Your task to perform on an android device: change notifications settings Image 0: 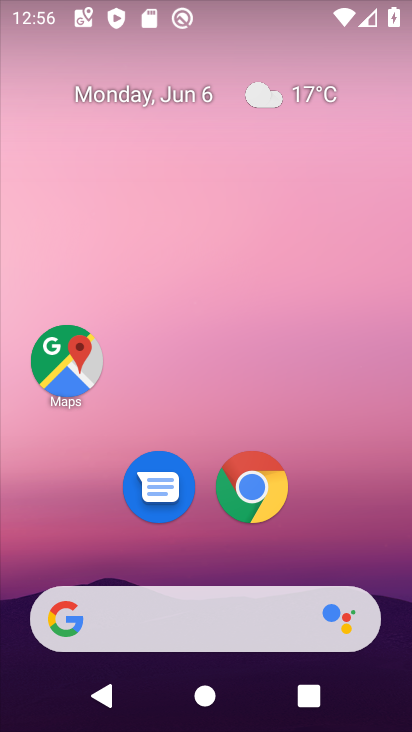
Step 0: drag from (80, 561) to (216, 135)
Your task to perform on an android device: change notifications settings Image 1: 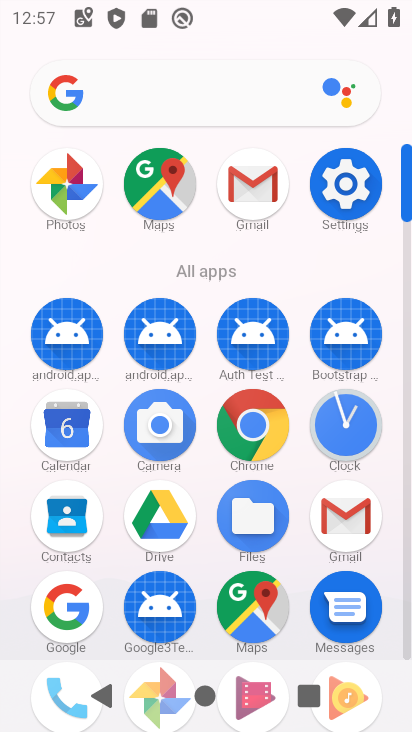
Step 1: drag from (205, 675) to (312, 276)
Your task to perform on an android device: change notifications settings Image 2: 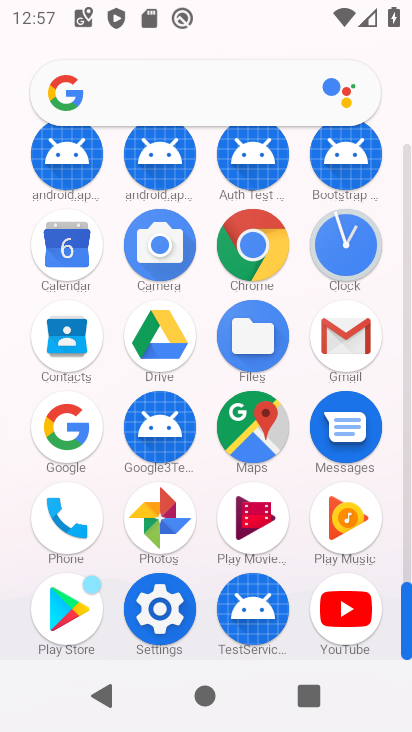
Step 2: click (161, 631)
Your task to perform on an android device: change notifications settings Image 3: 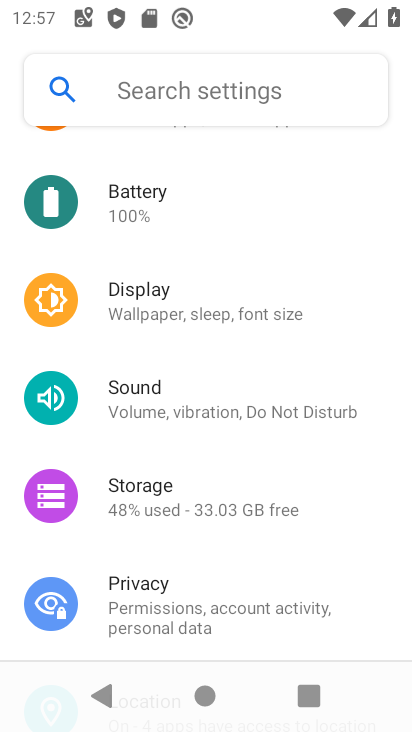
Step 3: drag from (213, 578) to (363, 238)
Your task to perform on an android device: change notifications settings Image 4: 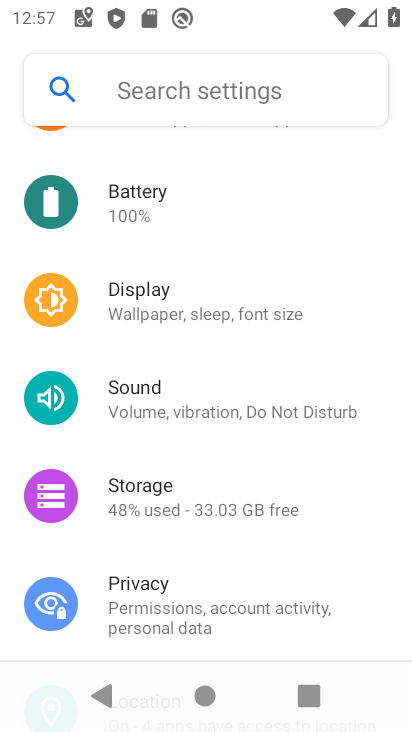
Step 4: drag from (326, 209) to (307, 596)
Your task to perform on an android device: change notifications settings Image 5: 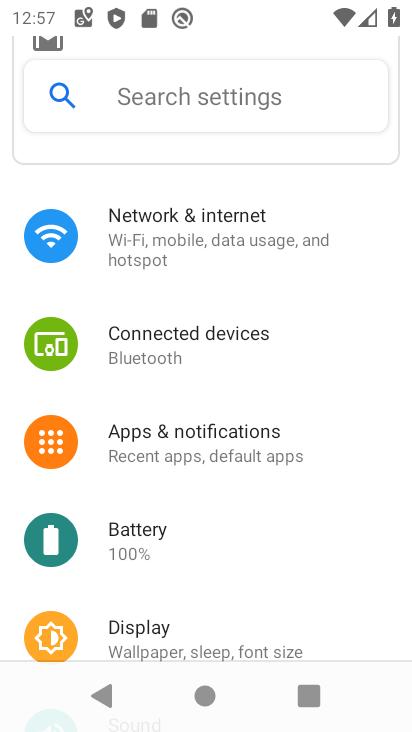
Step 5: click (265, 434)
Your task to perform on an android device: change notifications settings Image 6: 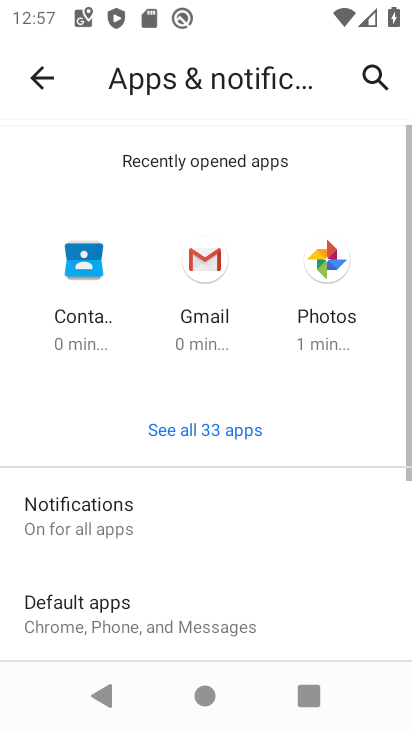
Step 6: drag from (232, 595) to (359, 206)
Your task to perform on an android device: change notifications settings Image 7: 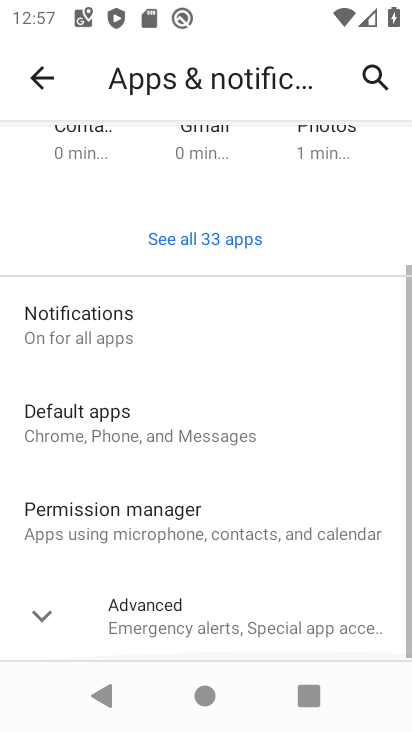
Step 7: click (159, 346)
Your task to perform on an android device: change notifications settings Image 8: 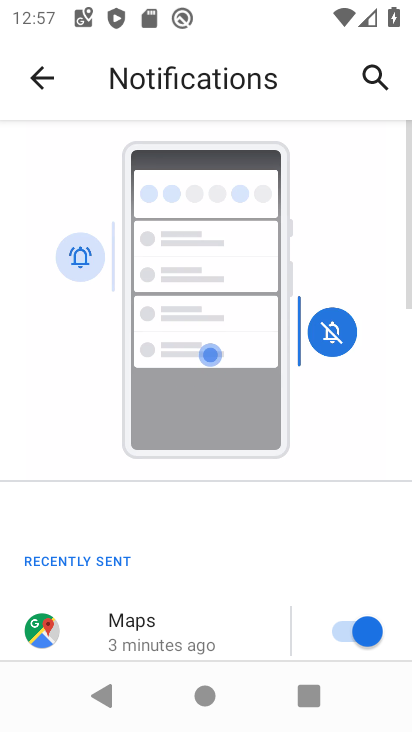
Step 8: drag from (167, 617) to (336, 132)
Your task to perform on an android device: change notifications settings Image 9: 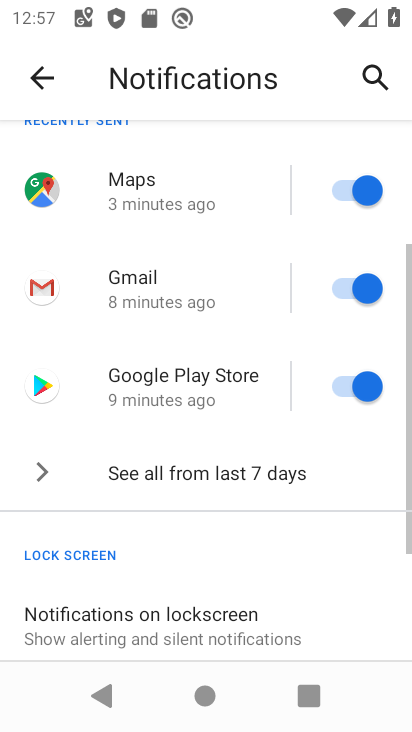
Step 9: drag from (219, 505) to (299, 190)
Your task to perform on an android device: change notifications settings Image 10: 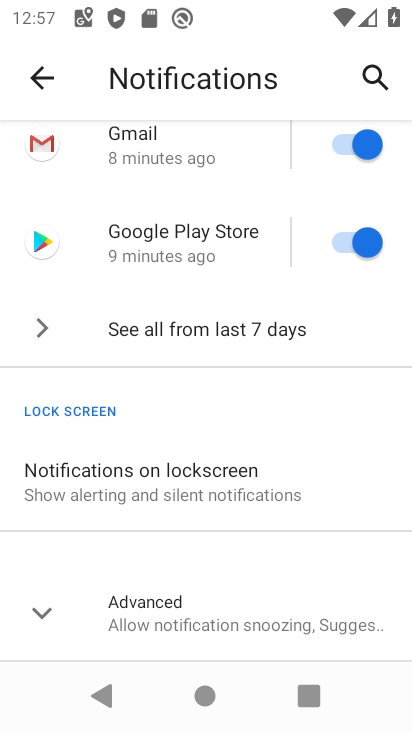
Step 10: click (235, 606)
Your task to perform on an android device: change notifications settings Image 11: 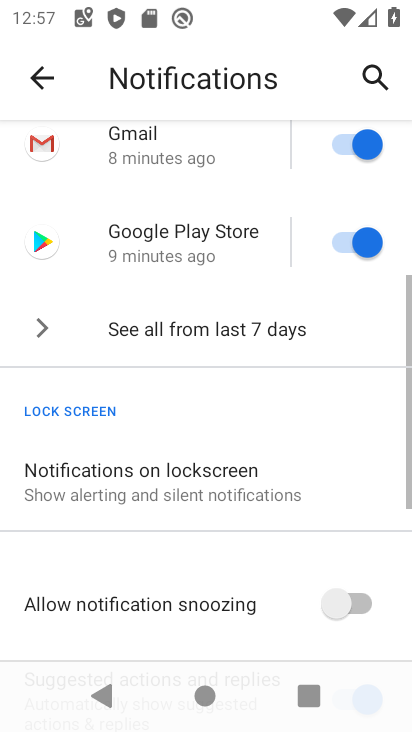
Step 11: drag from (241, 573) to (321, 323)
Your task to perform on an android device: change notifications settings Image 12: 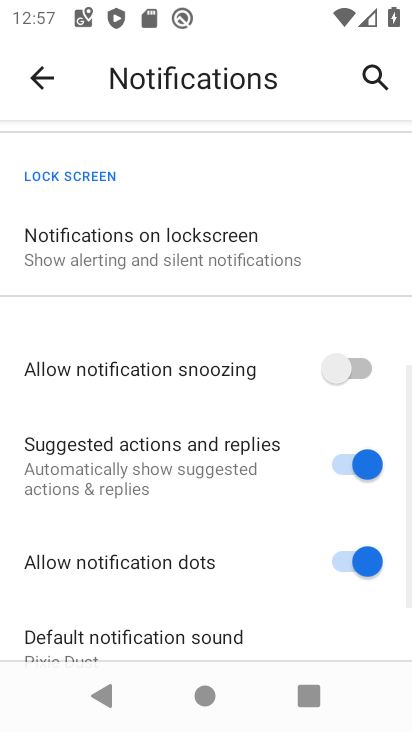
Step 12: click (369, 366)
Your task to perform on an android device: change notifications settings Image 13: 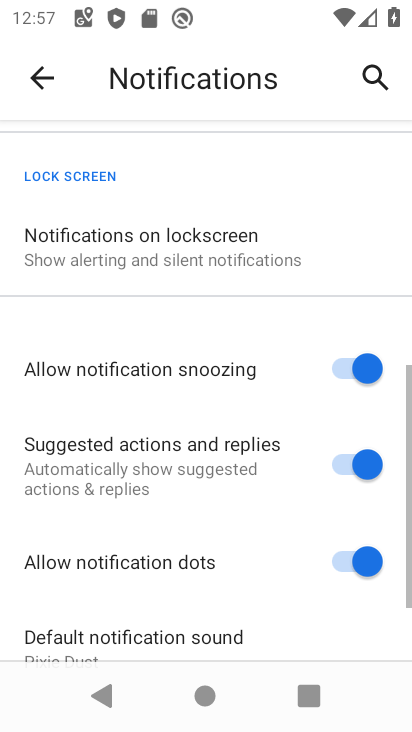
Step 13: click (357, 459)
Your task to perform on an android device: change notifications settings Image 14: 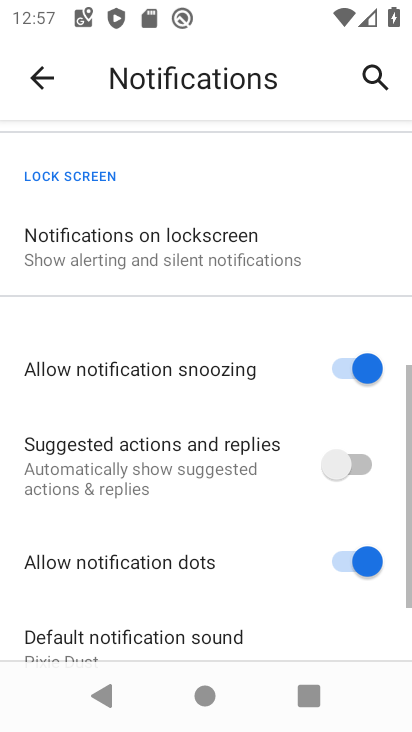
Step 14: click (359, 562)
Your task to perform on an android device: change notifications settings Image 15: 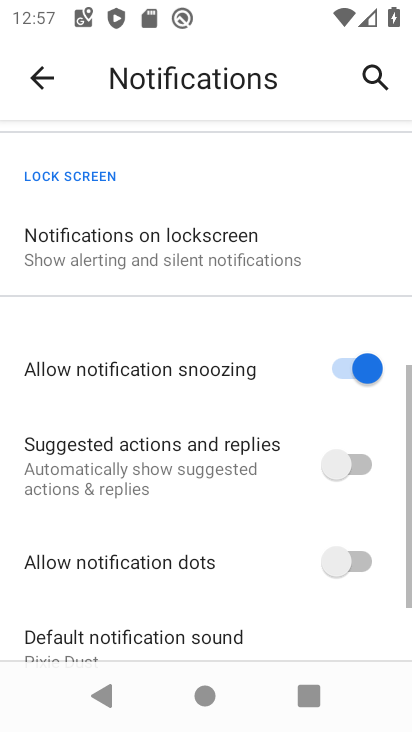
Step 15: click (204, 240)
Your task to perform on an android device: change notifications settings Image 16: 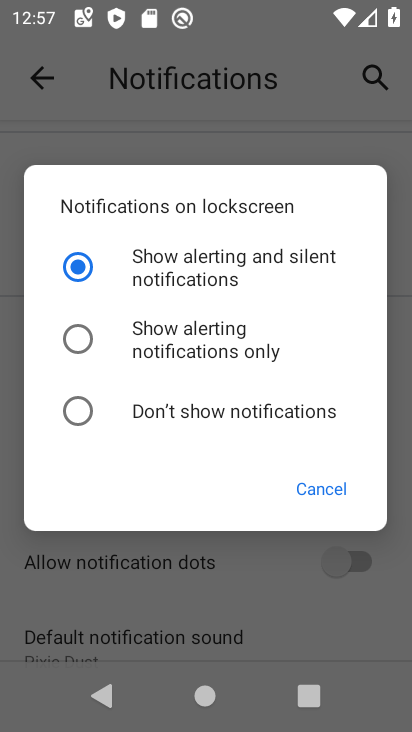
Step 16: click (181, 417)
Your task to perform on an android device: change notifications settings Image 17: 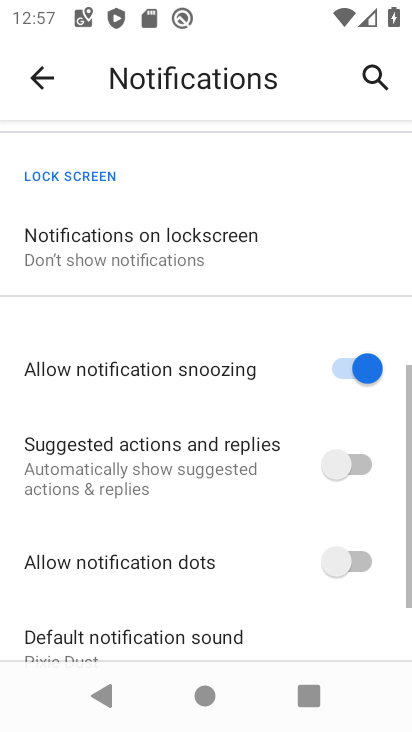
Step 17: click (221, 638)
Your task to perform on an android device: change notifications settings Image 18: 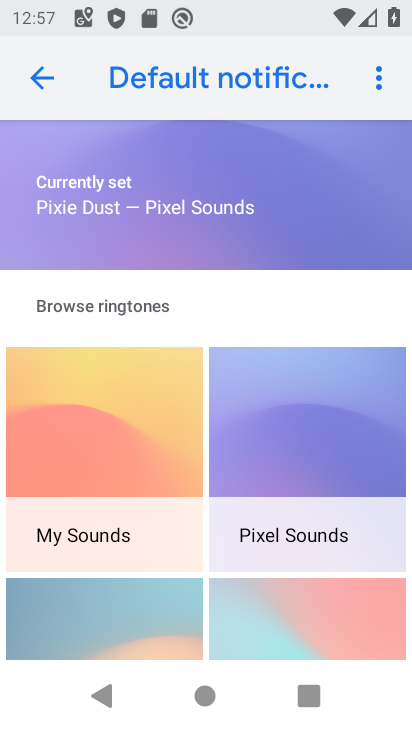
Step 18: click (326, 467)
Your task to perform on an android device: change notifications settings Image 19: 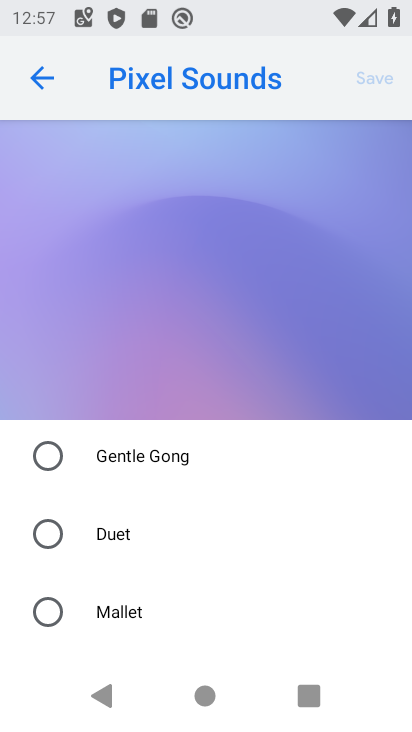
Step 19: click (227, 534)
Your task to perform on an android device: change notifications settings Image 20: 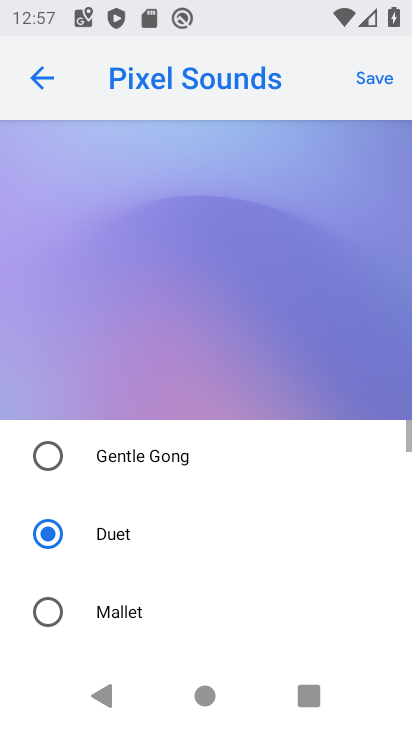
Step 20: click (353, 69)
Your task to perform on an android device: change notifications settings Image 21: 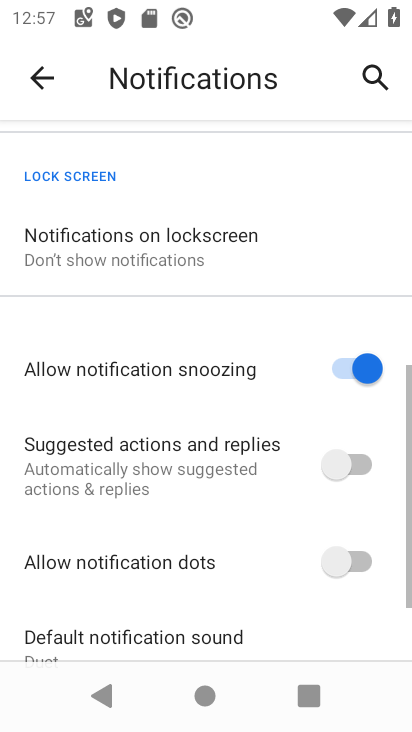
Step 21: task complete